Your task to perform on an android device: turn off notifications in google photos Image 0: 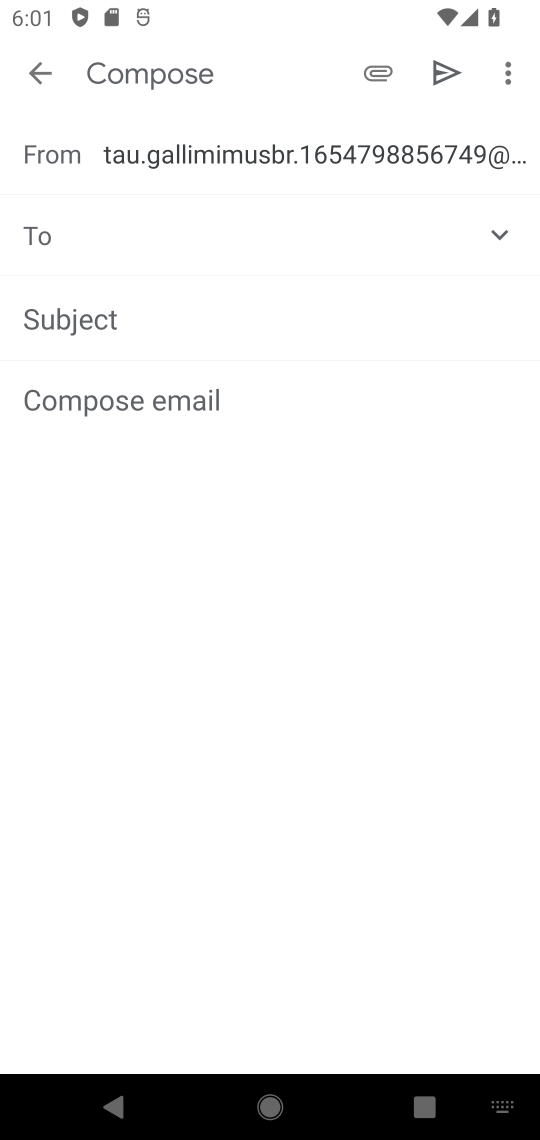
Step 0: press home button
Your task to perform on an android device: turn off notifications in google photos Image 1: 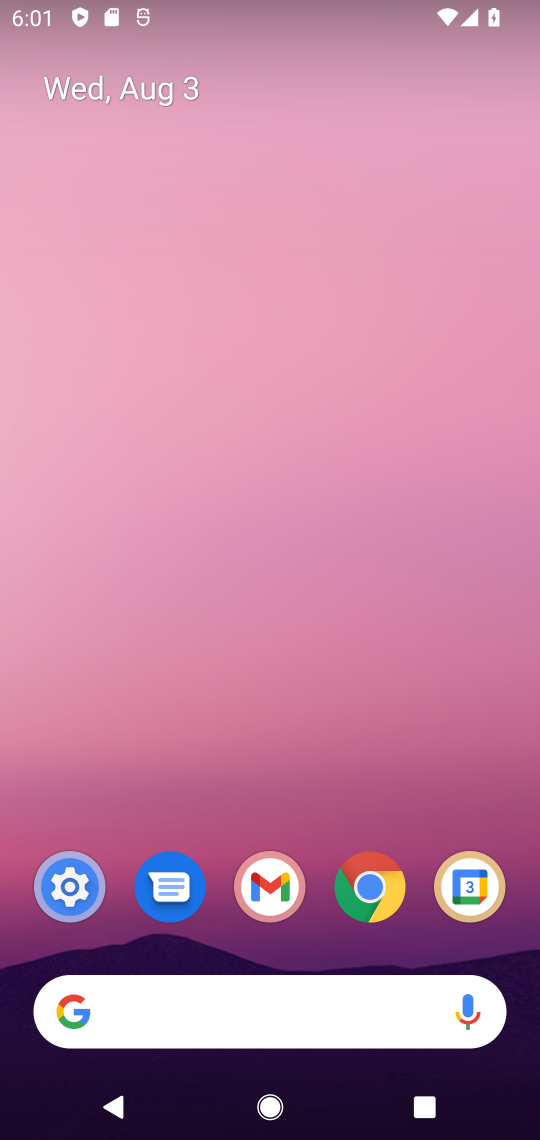
Step 1: drag from (213, 971) to (514, 614)
Your task to perform on an android device: turn off notifications in google photos Image 2: 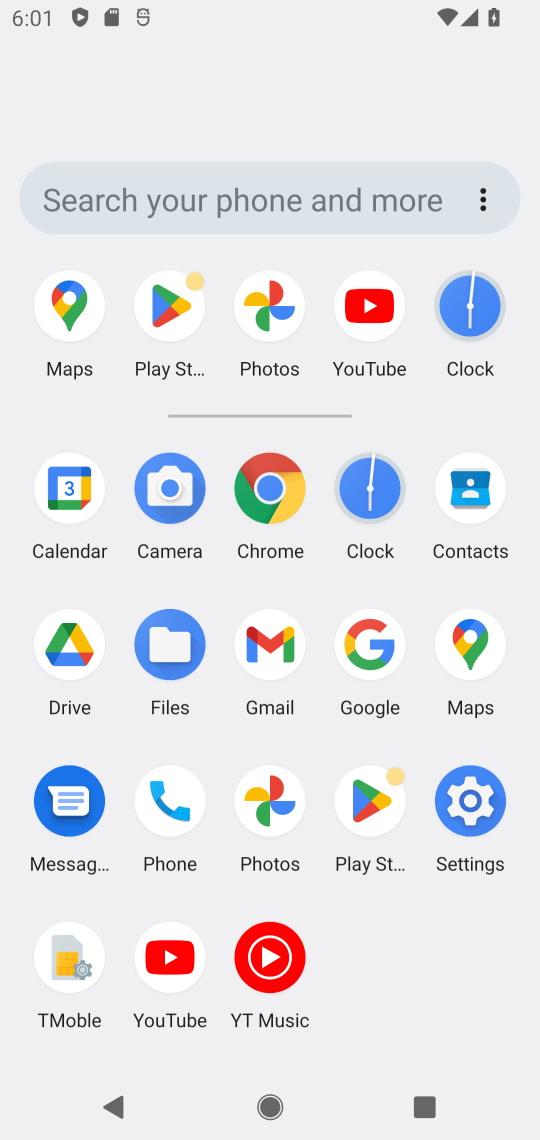
Step 2: click (283, 706)
Your task to perform on an android device: turn off notifications in google photos Image 3: 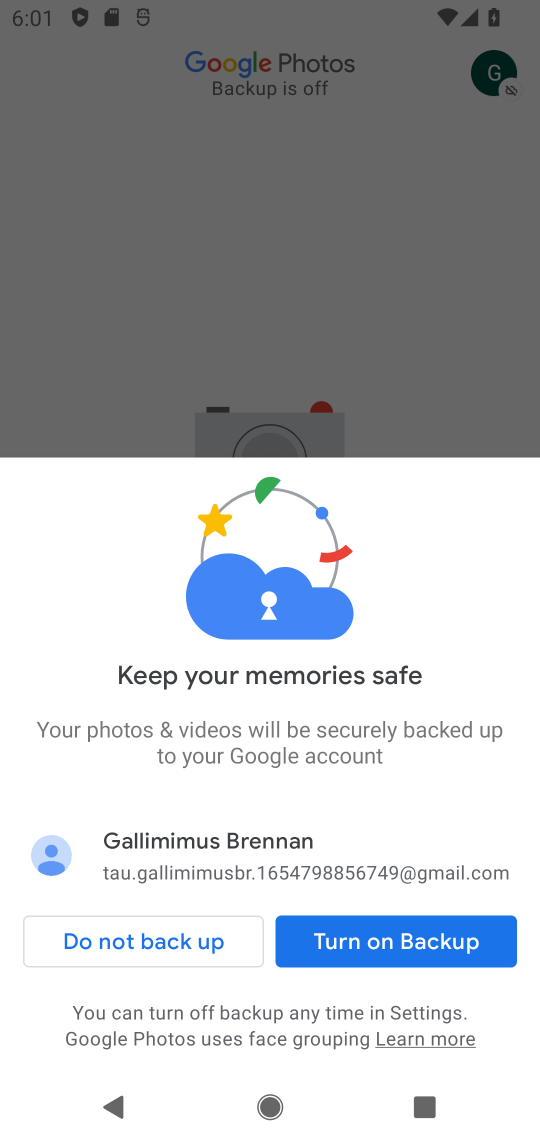
Step 3: click (176, 948)
Your task to perform on an android device: turn off notifications in google photos Image 4: 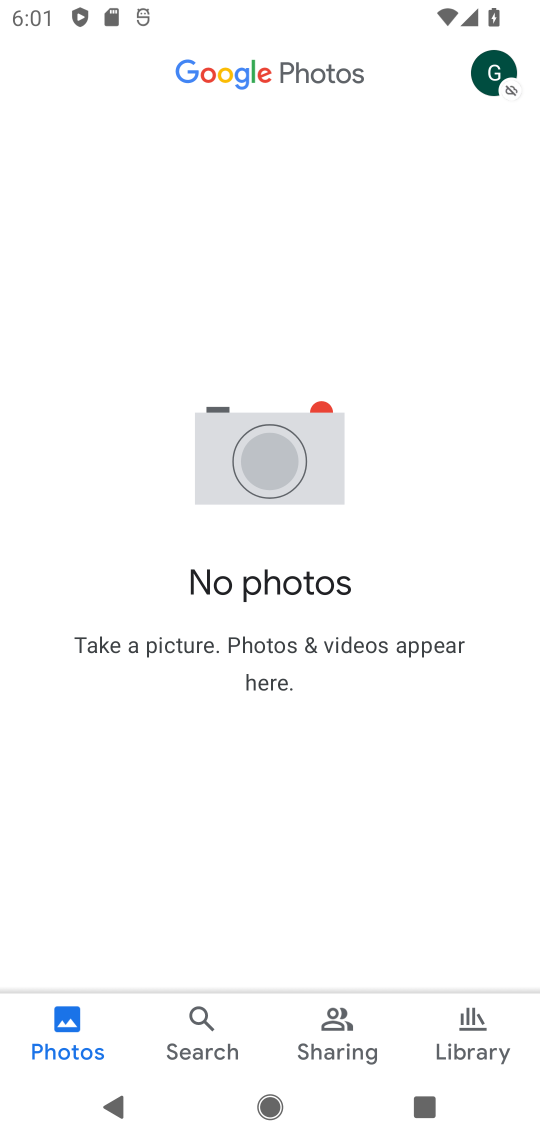
Step 4: drag from (509, 63) to (320, 471)
Your task to perform on an android device: turn off notifications in google photos Image 5: 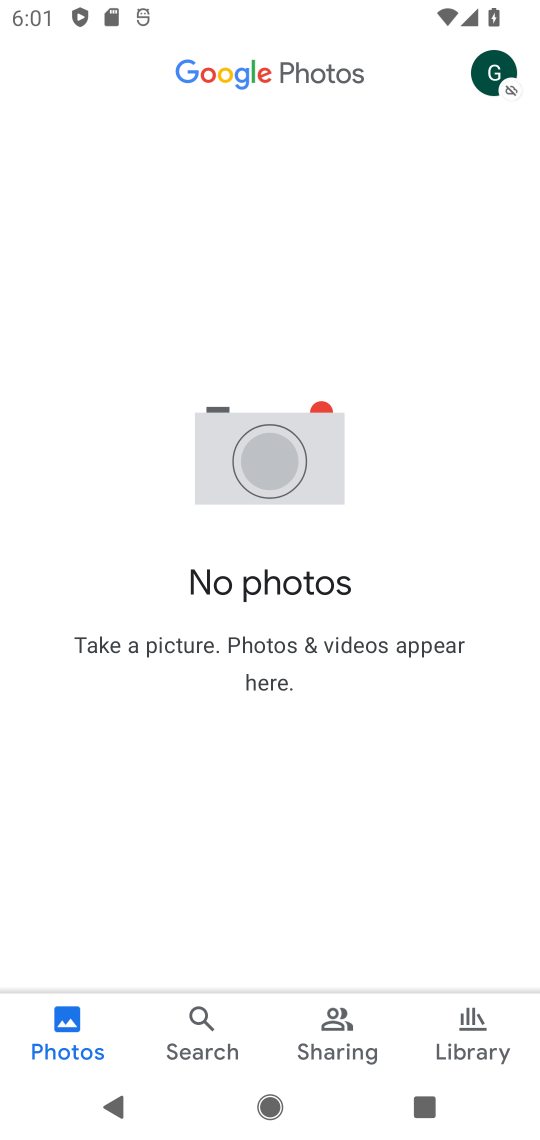
Step 5: click (377, 395)
Your task to perform on an android device: turn off notifications in google photos Image 6: 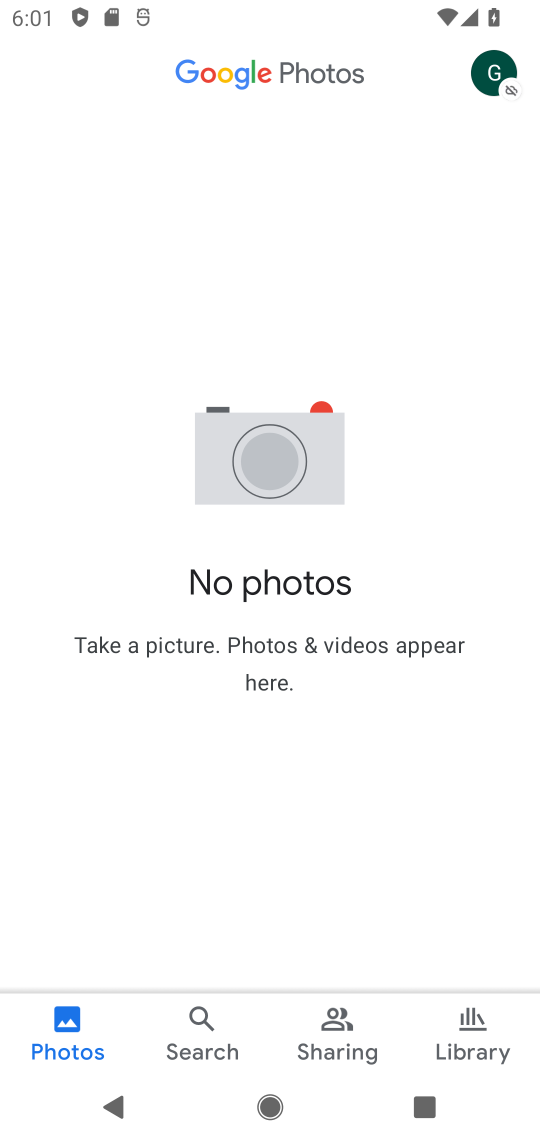
Step 6: click (501, 80)
Your task to perform on an android device: turn off notifications in google photos Image 7: 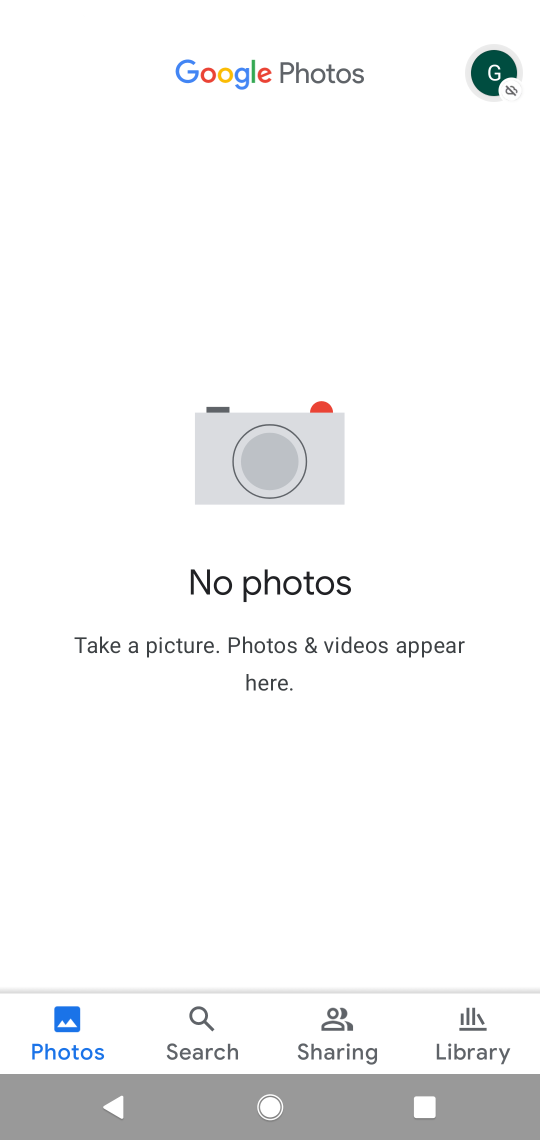
Step 7: click (503, 76)
Your task to perform on an android device: turn off notifications in google photos Image 8: 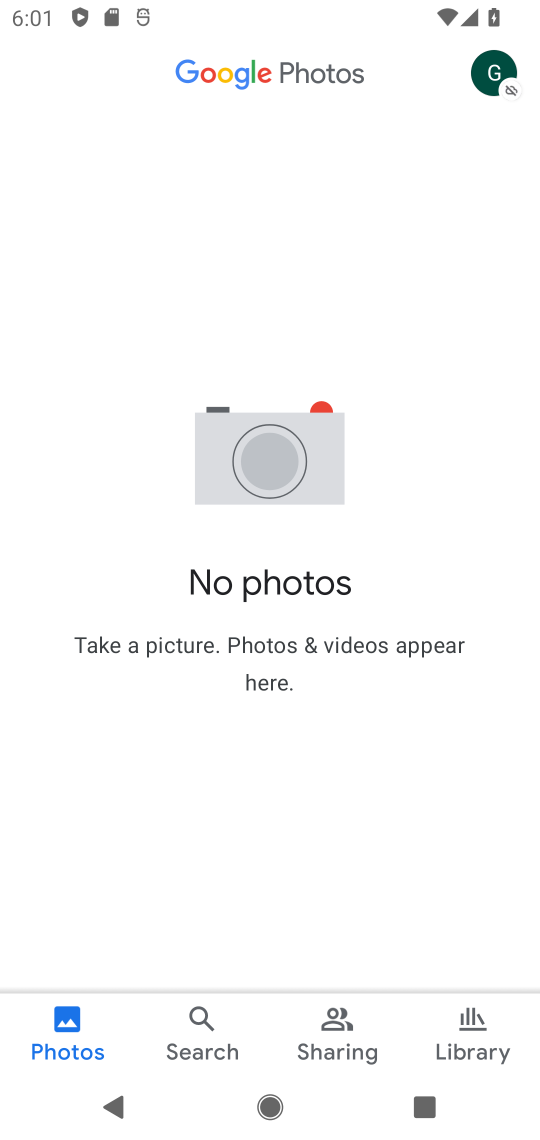
Step 8: click (487, 86)
Your task to perform on an android device: turn off notifications in google photos Image 9: 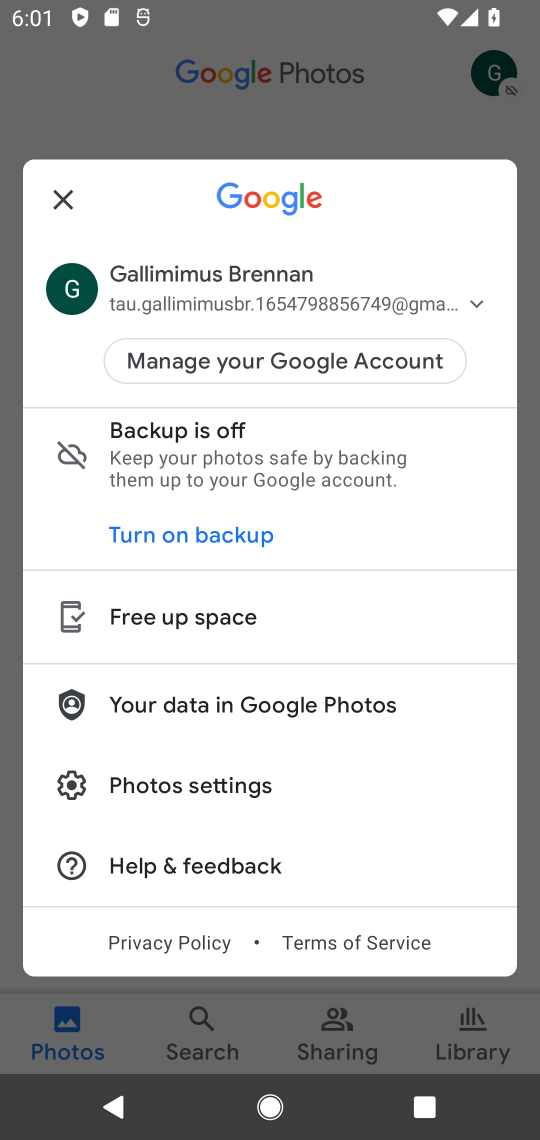
Step 9: click (222, 765)
Your task to perform on an android device: turn off notifications in google photos Image 10: 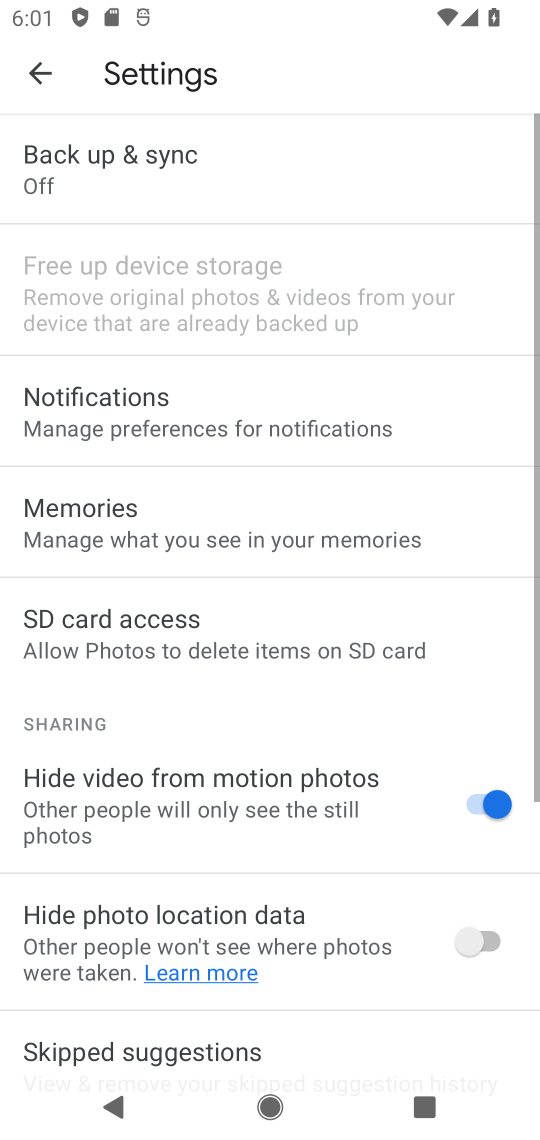
Step 10: click (98, 422)
Your task to perform on an android device: turn off notifications in google photos Image 11: 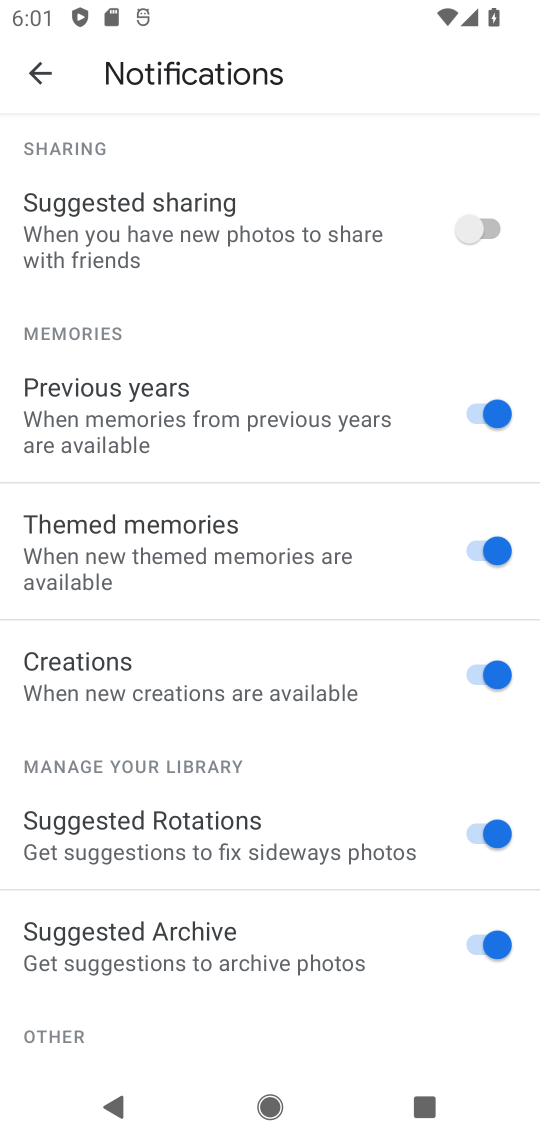
Step 11: drag from (251, 958) to (159, 117)
Your task to perform on an android device: turn off notifications in google photos Image 12: 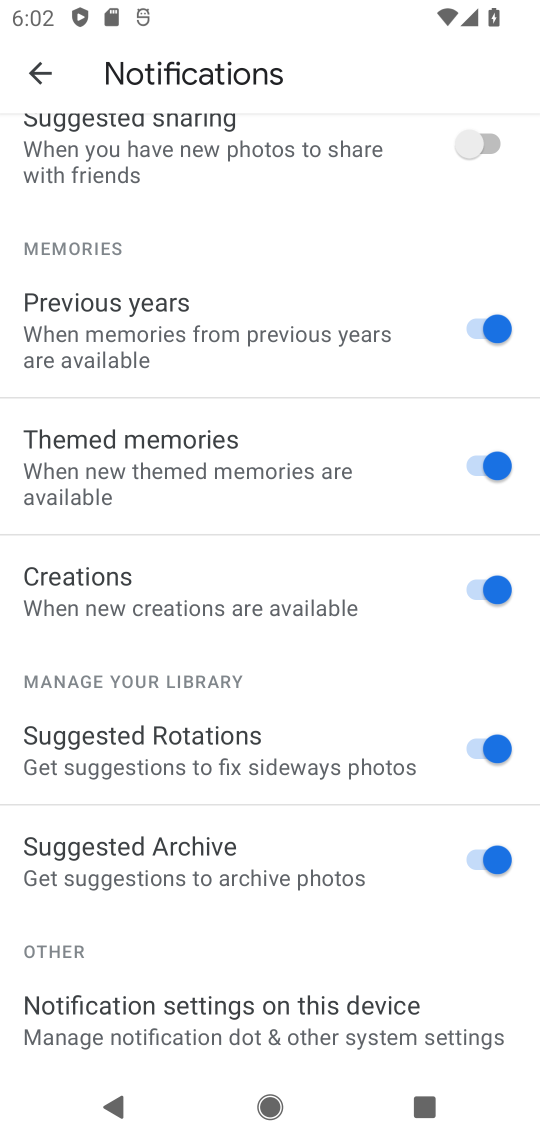
Step 12: click (247, 1029)
Your task to perform on an android device: turn off notifications in google photos Image 13: 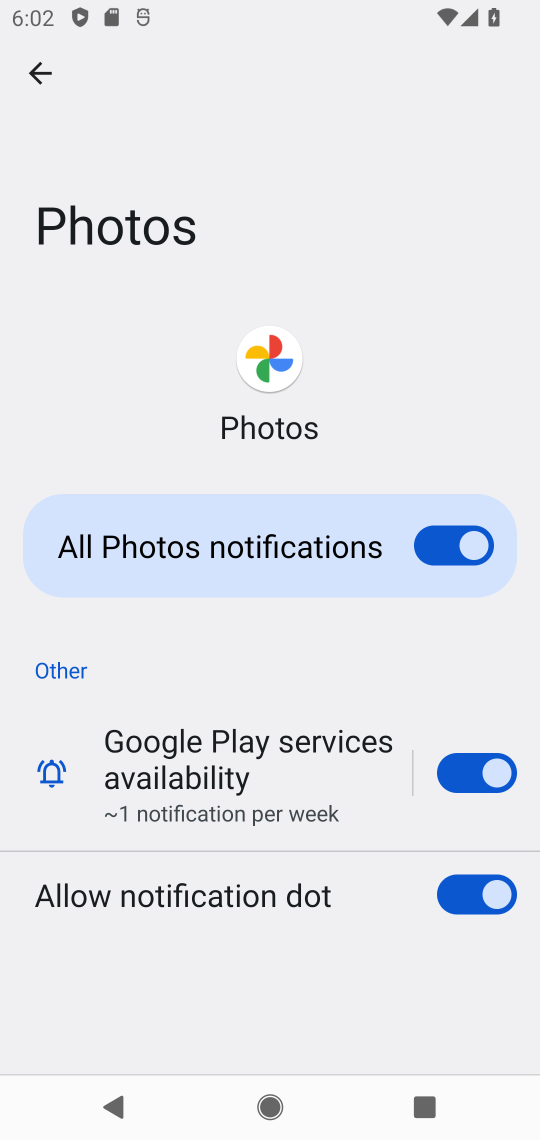
Step 13: click (440, 559)
Your task to perform on an android device: turn off notifications in google photos Image 14: 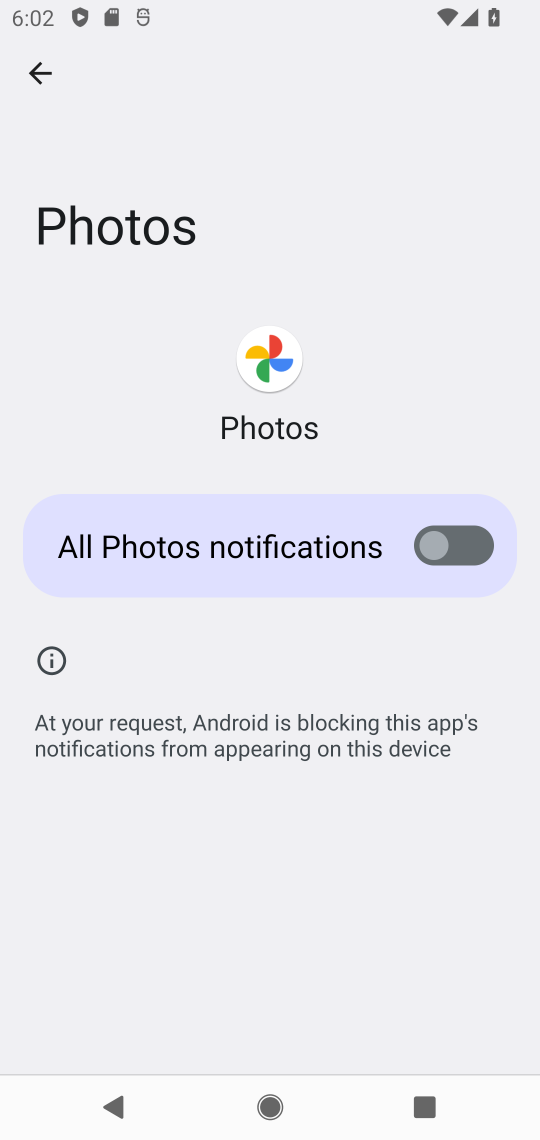
Step 14: task complete